Your task to perform on an android device: Open maps Image 0: 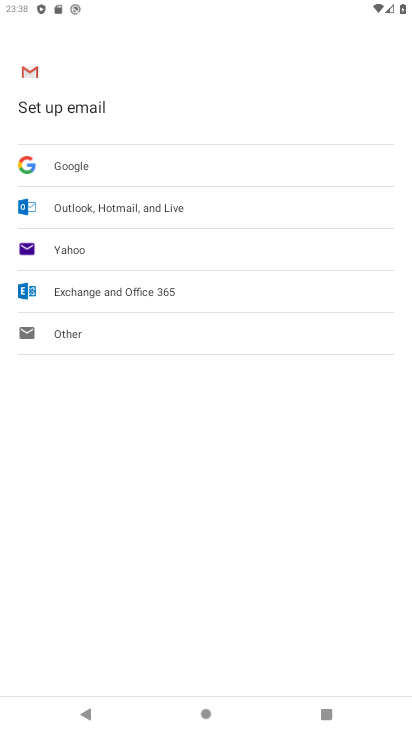
Step 0: press home button
Your task to perform on an android device: Open maps Image 1: 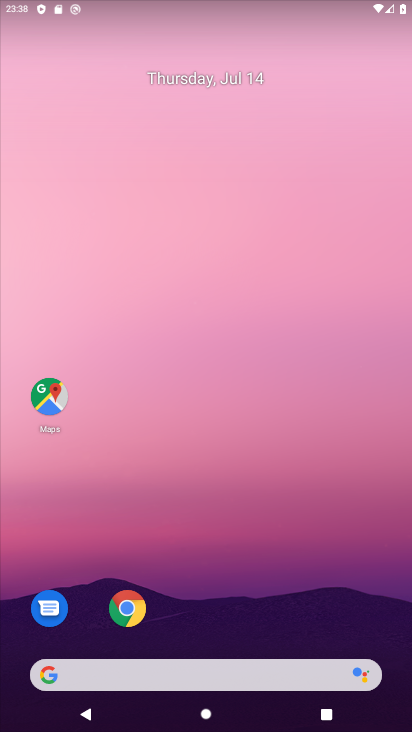
Step 1: click (40, 396)
Your task to perform on an android device: Open maps Image 2: 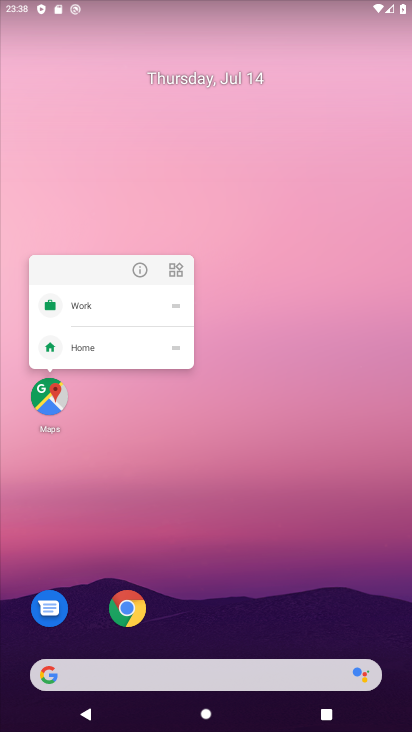
Step 2: click (46, 386)
Your task to perform on an android device: Open maps Image 3: 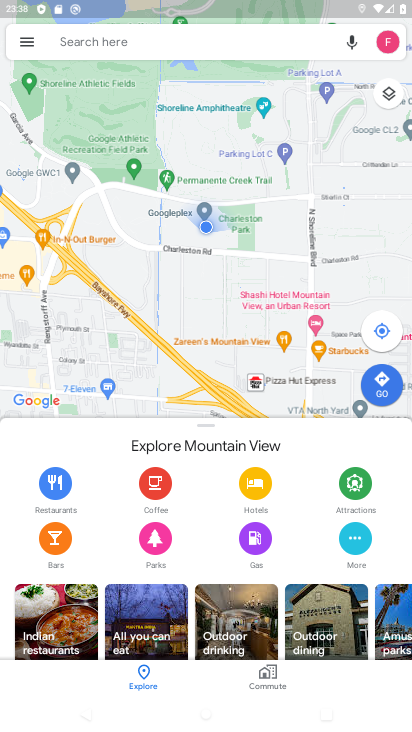
Step 3: task complete